Your task to perform on an android device: turn off wifi Image 0: 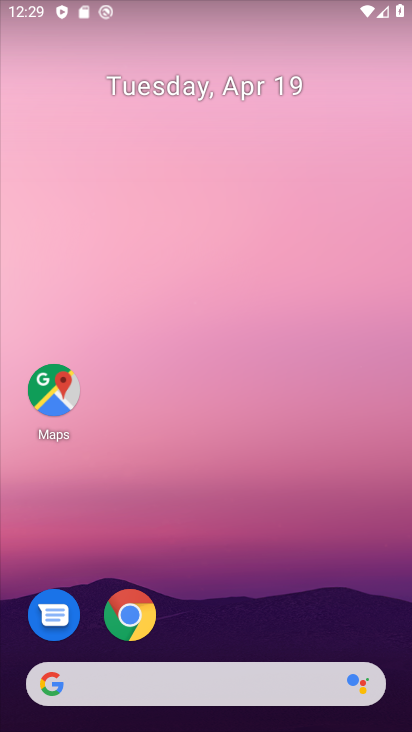
Step 0: drag from (191, 9) to (193, 530)
Your task to perform on an android device: turn off wifi Image 1: 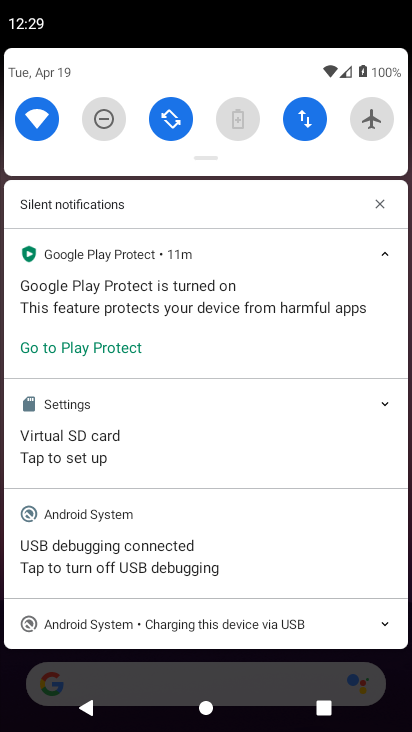
Step 1: click (42, 113)
Your task to perform on an android device: turn off wifi Image 2: 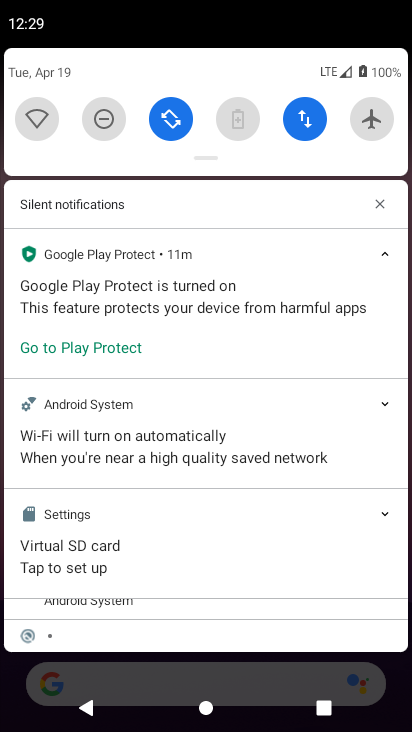
Step 2: task complete